Your task to perform on an android device: Show the shopping cart on target. Image 0: 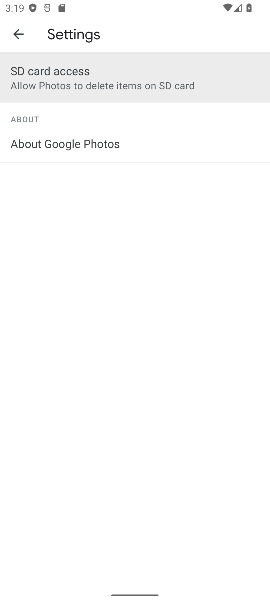
Step 0: press home button
Your task to perform on an android device: Show the shopping cart on target. Image 1: 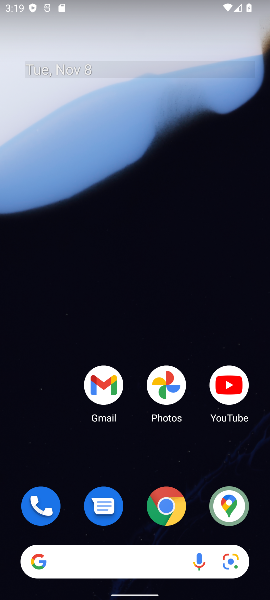
Step 1: drag from (135, 525) to (151, 91)
Your task to perform on an android device: Show the shopping cart on target. Image 2: 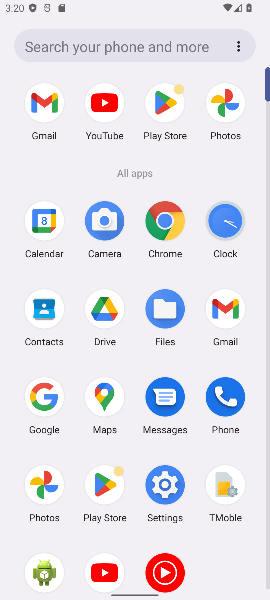
Step 2: click (48, 405)
Your task to perform on an android device: Show the shopping cart on target. Image 3: 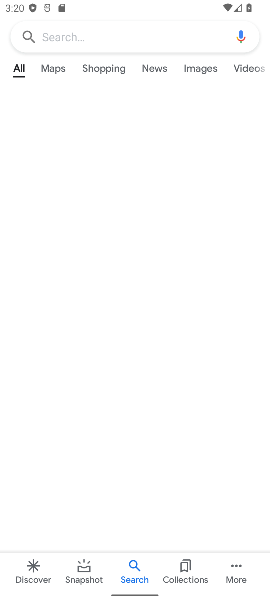
Step 3: click (146, 31)
Your task to perform on an android device: Show the shopping cart on target. Image 4: 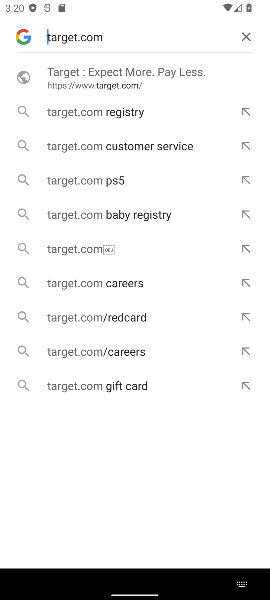
Step 4: click (246, 36)
Your task to perform on an android device: Show the shopping cart on target. Image 5: 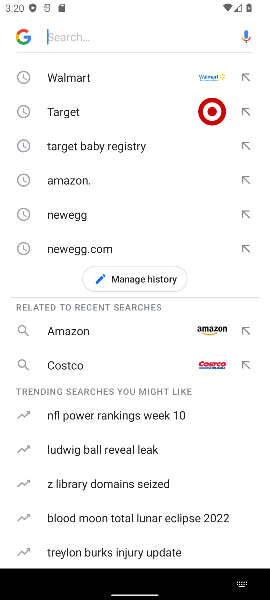
Step 5: type "target"
Your task to perform on an android device: Show the shopping cart on target. Image 6: 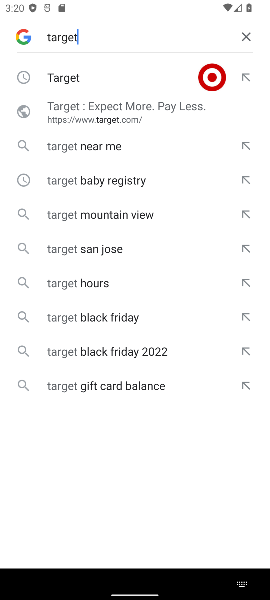
Step 6: click (114, 102)
Your task to perform on an android device: Show the shopping cart on target. Image 7: 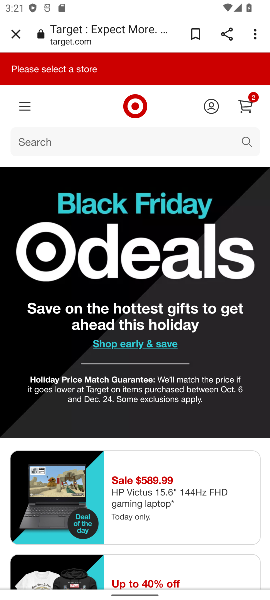
Step 7: click (243, 108)
Your task to perform on an android device: Show the shopping cart on target. Image 8: 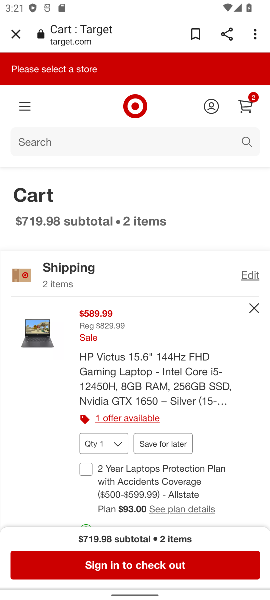
Step 8: task complete